Your task to perform on an android device: Go to eBay Image 0: 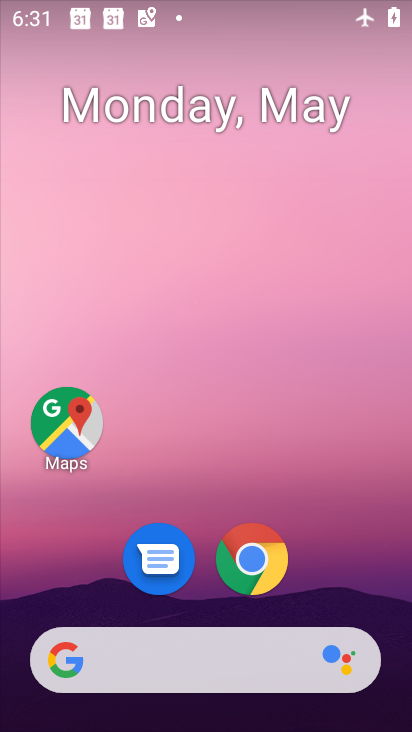
Step 0: drag from (389, 652) to (248, 108)
Your task to perform on an android device: Go to eBay Image 1: 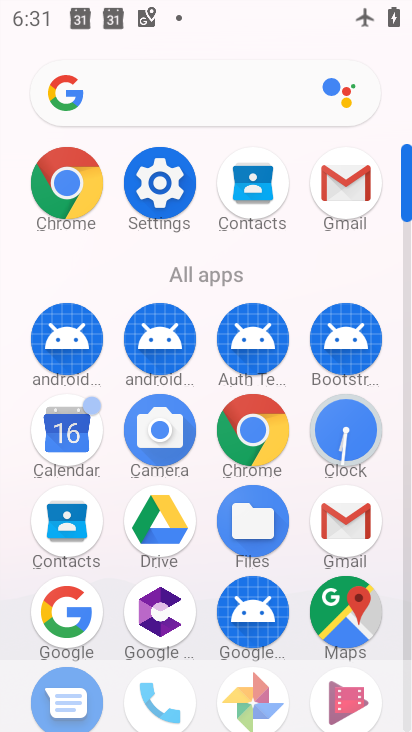
Step 1: click (48, 208)
Your task to perform on an android device: Go to eBay Image 2: 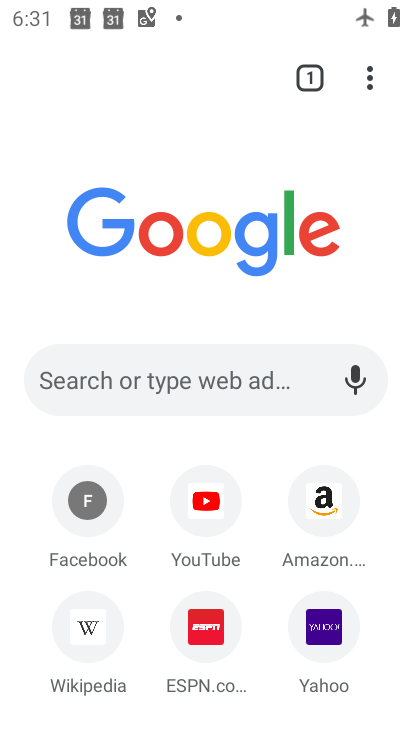
Step 2: click (186, 370)
Your task to perform on an android device: Go to eBay Image 3: 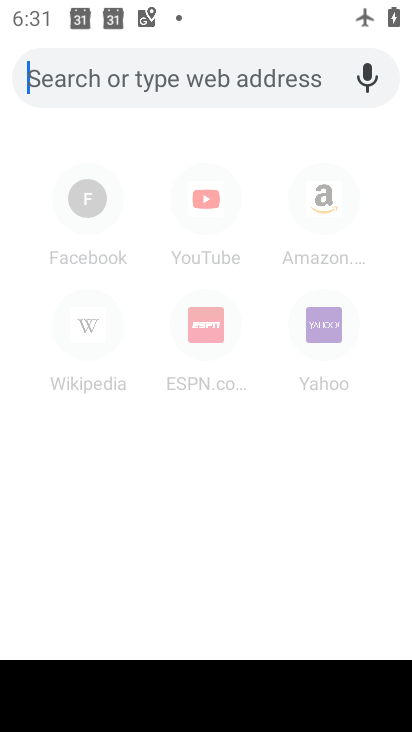
Step 3: type "ebay"
Your task to perform on an android device: Go to eBay Image 4: 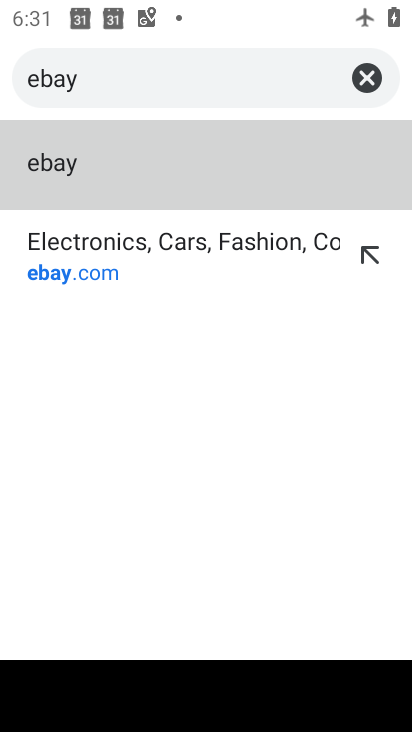
Step 4: click (247, 178)
Your task to perform on an android device: Go to eBay Image 5: 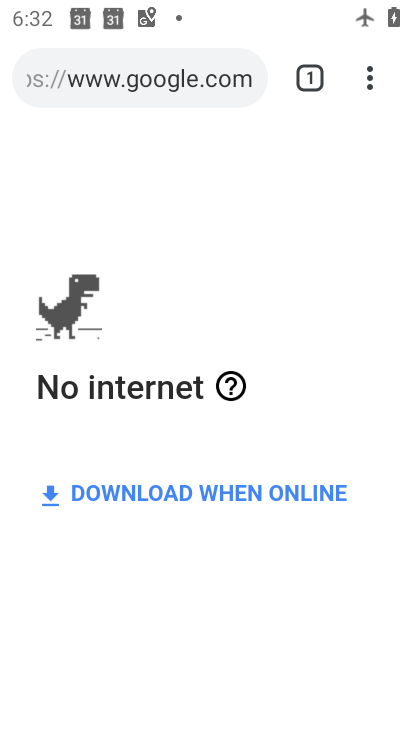
Step 5: task complete